Your task to perform on an android device: Open eBay Image 0: 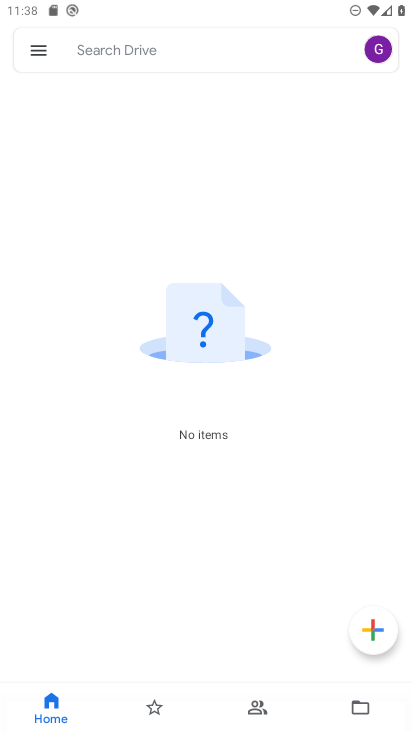
Step 0: press home button
Your task to perform on an android device: Open eBay Image 1: 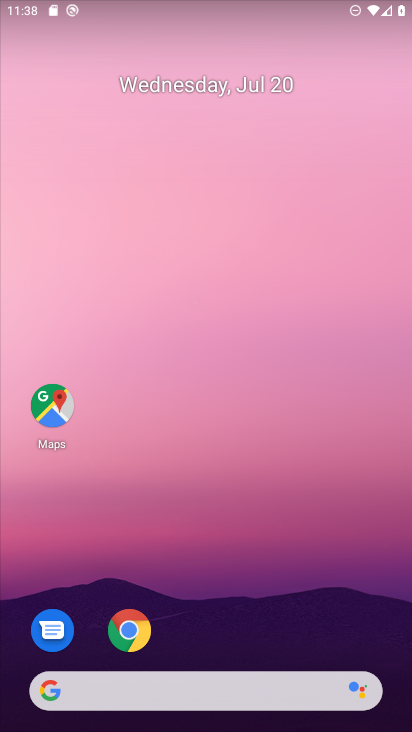
Step 1: click (134, 642)
Your task to perform on an android device: Open eBay Image 2: 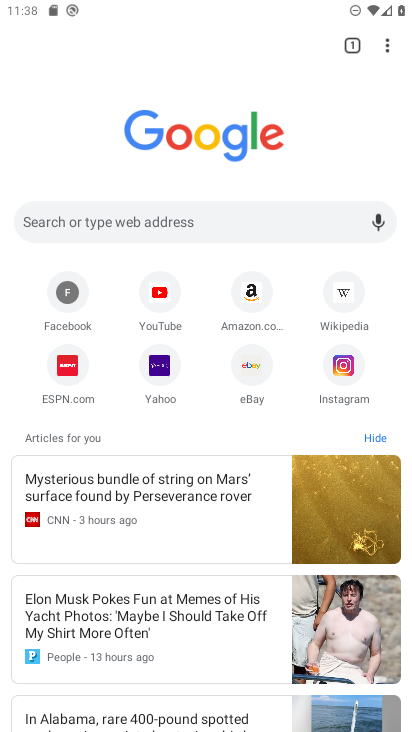
Step 2: click (252, 379)
Your task to perform on an android device: Open eBay Image 3: 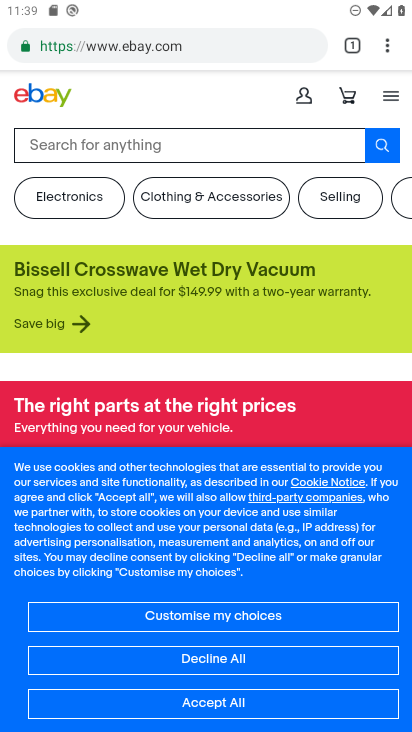
Step 3: task complete